Your task to perform on an android device: Add "acer nitro" to the cart on bestbuy.com Image 0: 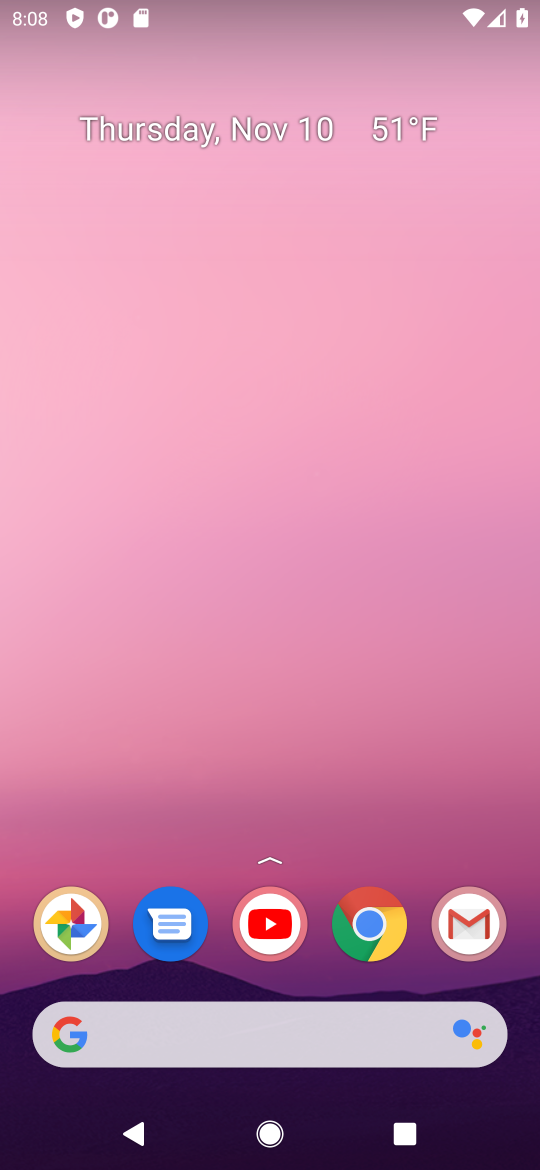
Step 0: click (372, 936)
Your task to perform on an android device: Add "acer nitro" to the cart on bestbuy.com Image 1: 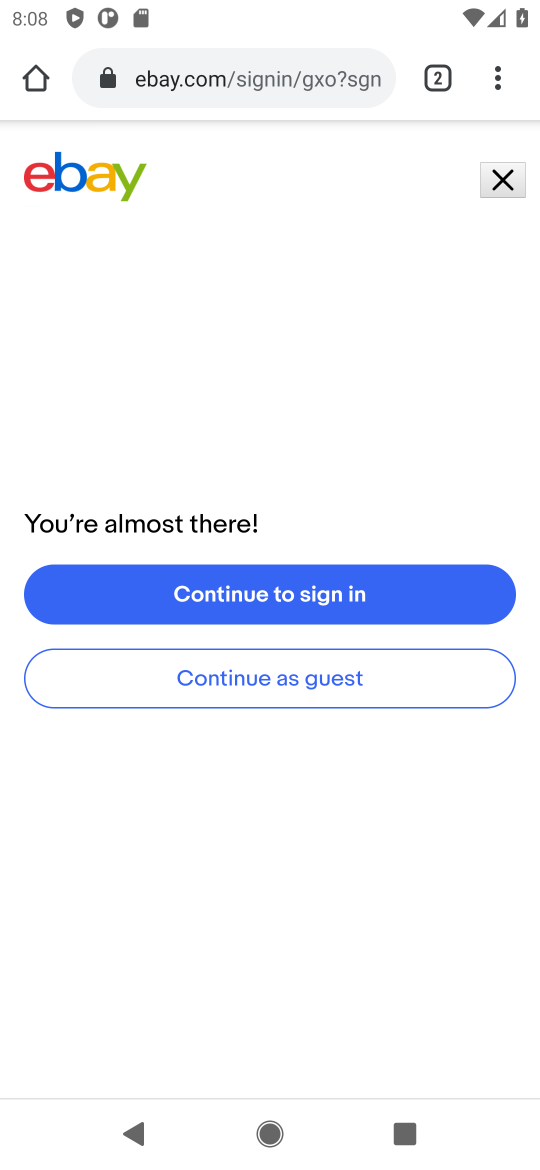
Step 1: click (219, 87)
Your task to perform on an android device: Add "acer nitro" to the cart on bestbuy.com Image 2: 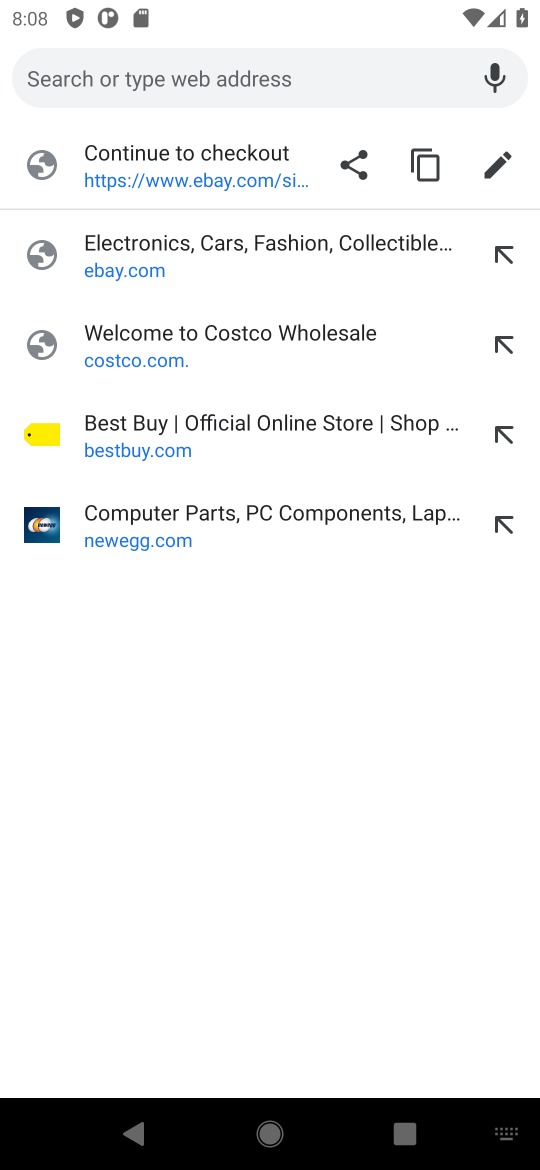
Step 2: click (133, 451)
Your task to perform on an android device: Add "acer nitro" to the cart on bestbuy.com Image 3: 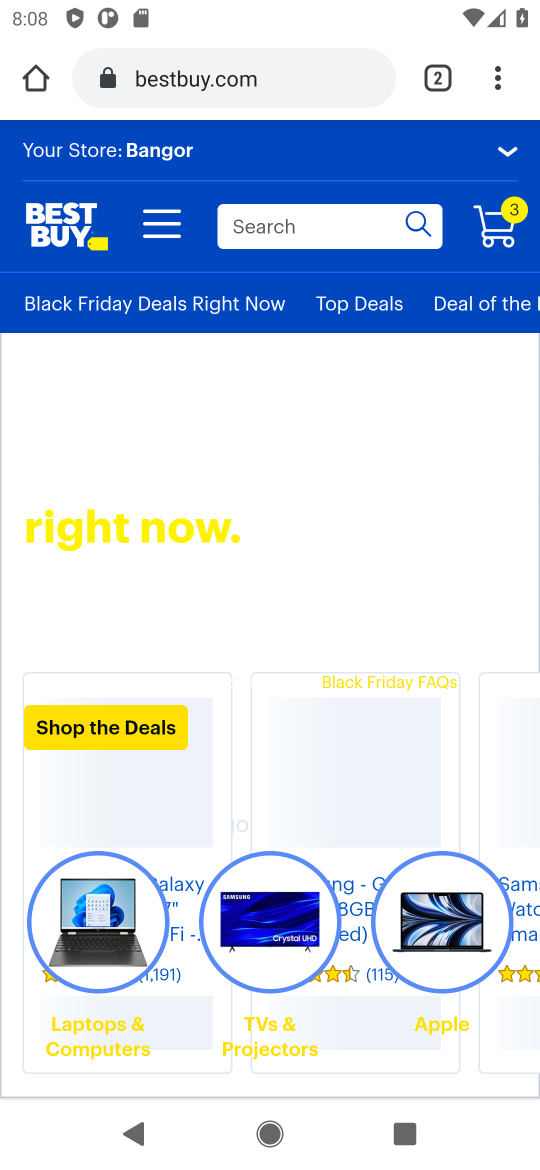
Step 3: click (303, 230)
Your task to perform on an android device: Add "acer nitro" to the cart on bestbuy.com Image 4: 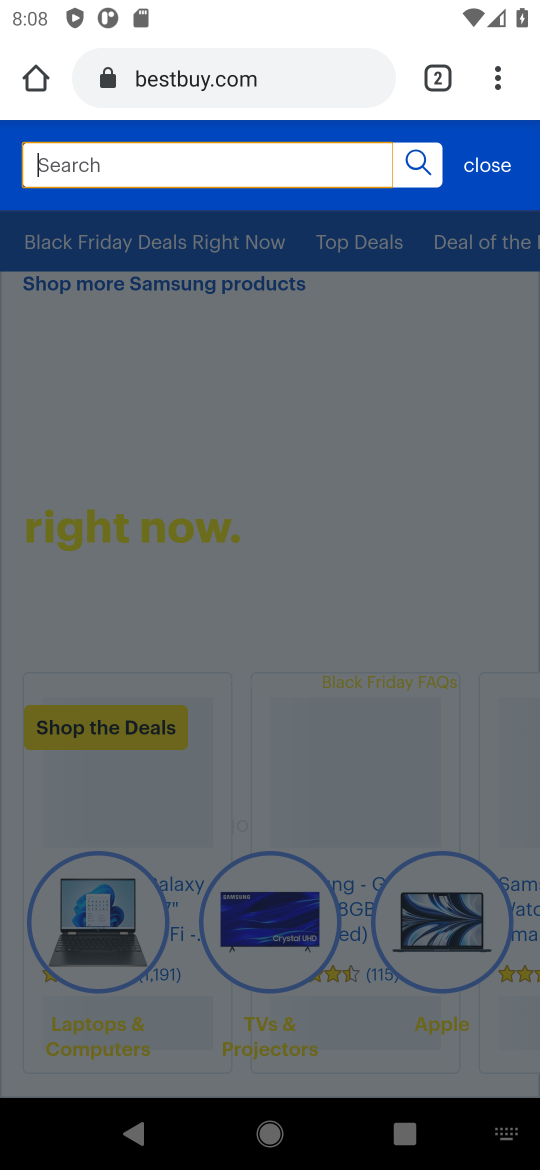
Step 4: click (303, 230)
Your task to perform on an android device: Add "acer nitro" to the cart on bestbuy.com Image 5: 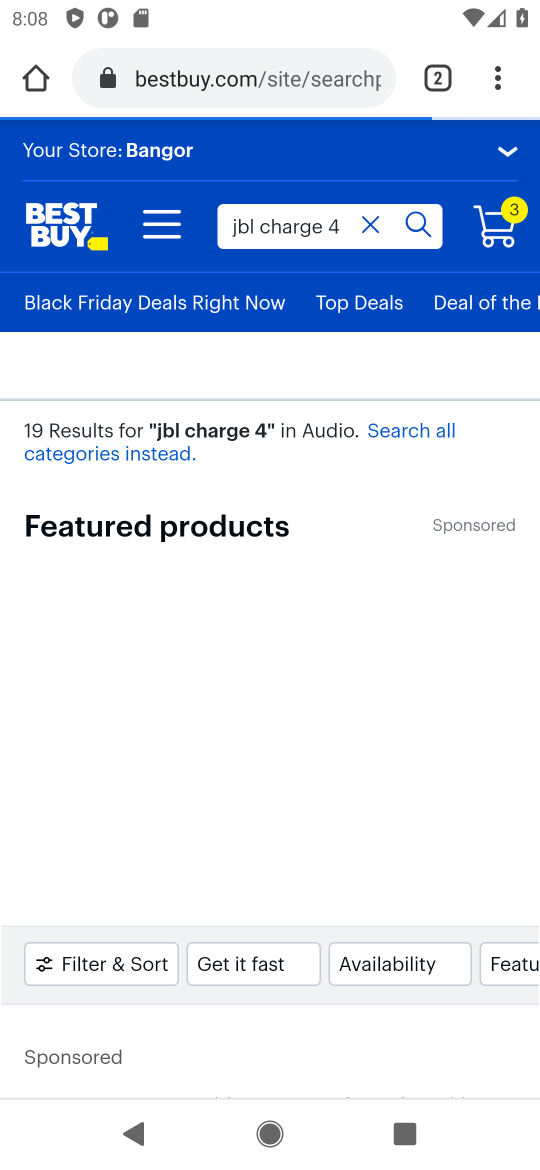
Step 5: click (365, 229)
Your task to perform on an android device: Add "acer nitro" to the cart on bestbuy.com Image 6: 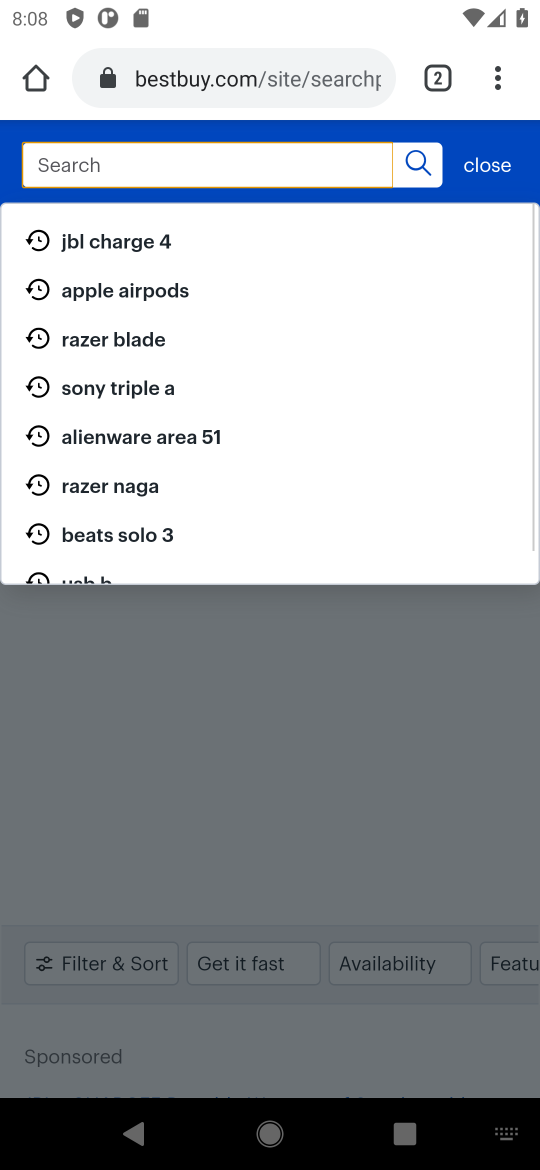
Step 6: click (131, 167)
Your task to perform on an android device: Add "acer nitro" to the cart on bestbuy.com Image 7: 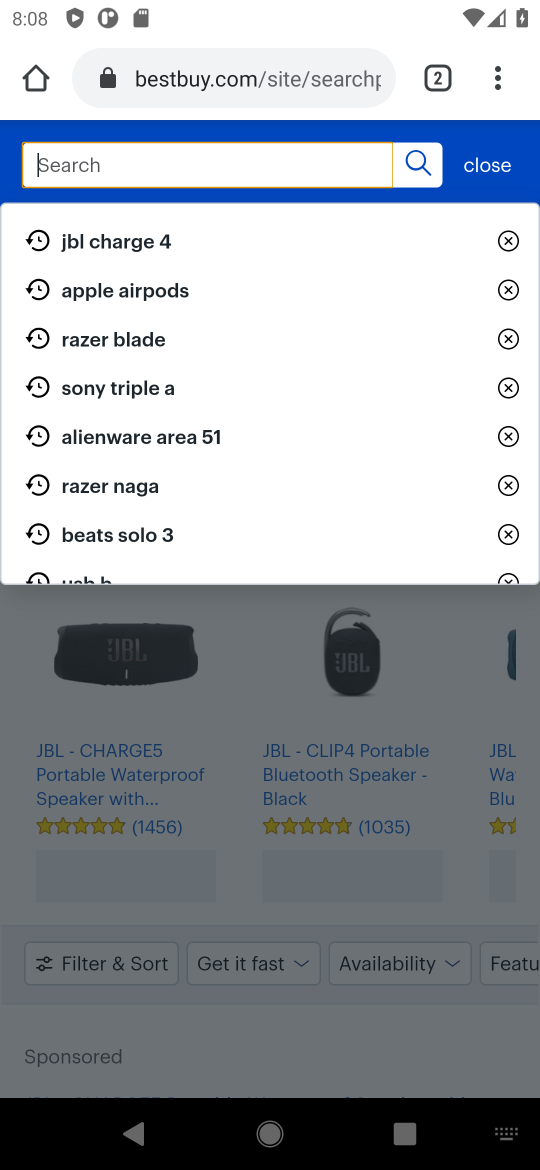
Step 7: type "acer nitro"
Your task to perform on an android device: Add "acer nitro" to the cart on bestbuy.com Image 8: 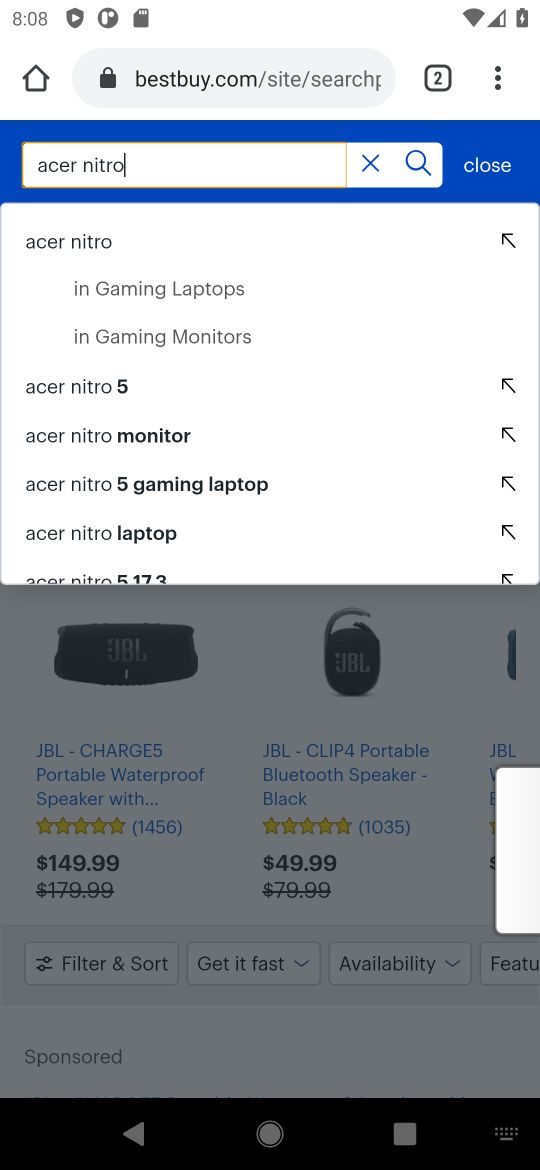
Step 8: click (88, 249)
Your task to perform on an android device: Add "acer nitro" to the cart on bestbuy.com Image 9: 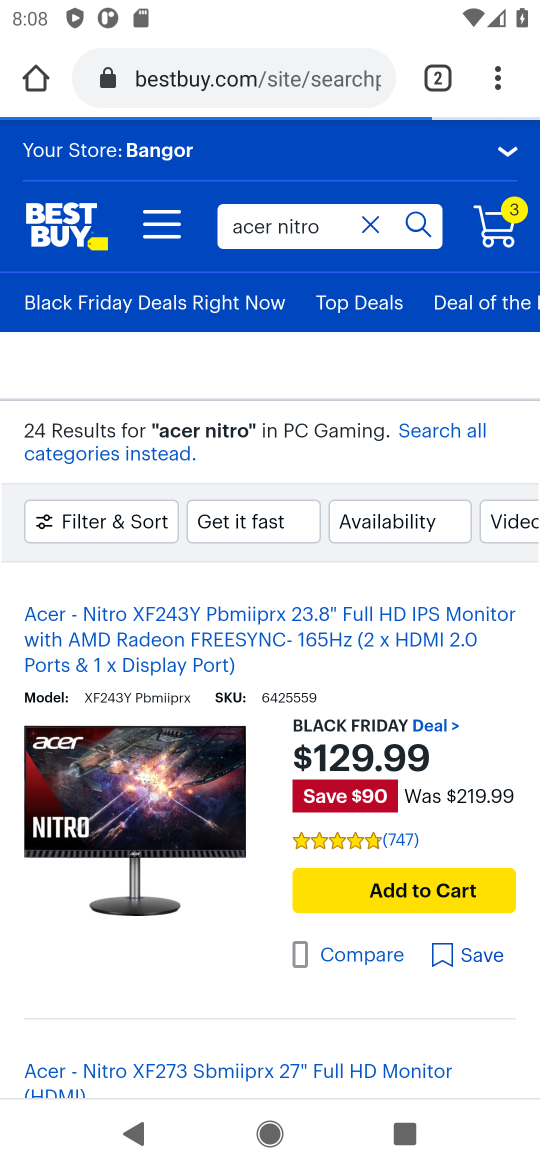
Step 9: drag from (146, 805) to (156, 464)
Your task to perform on an android device: Add "acer nitro" to the cart on bestbuy.com Image 10: 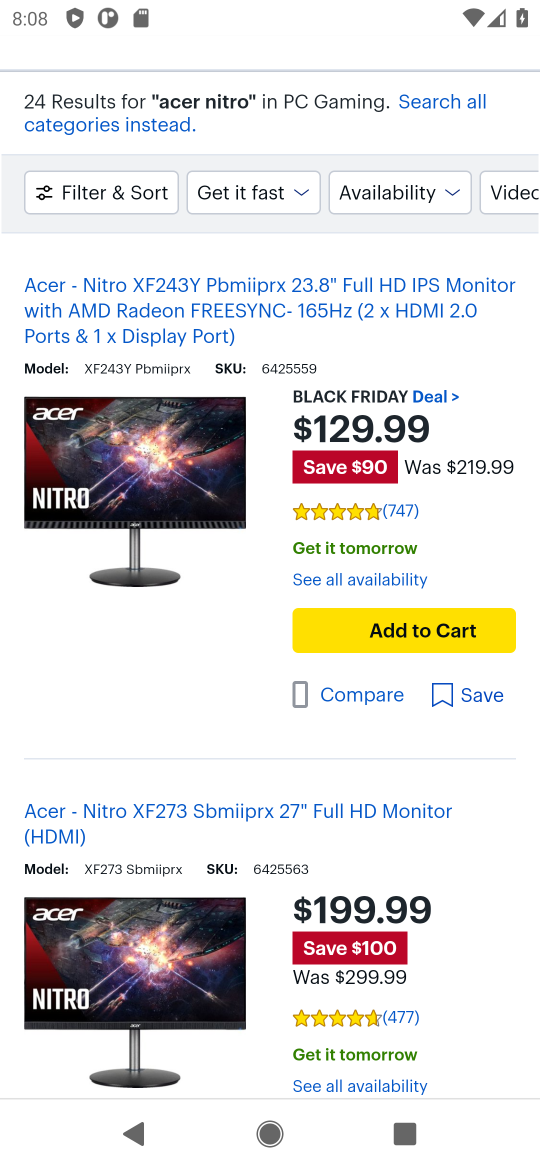
Step 10: click (414, 628)
Your task to perform on an android device: Add "acer nitro" to the cart on bestbuy.com Image 11: 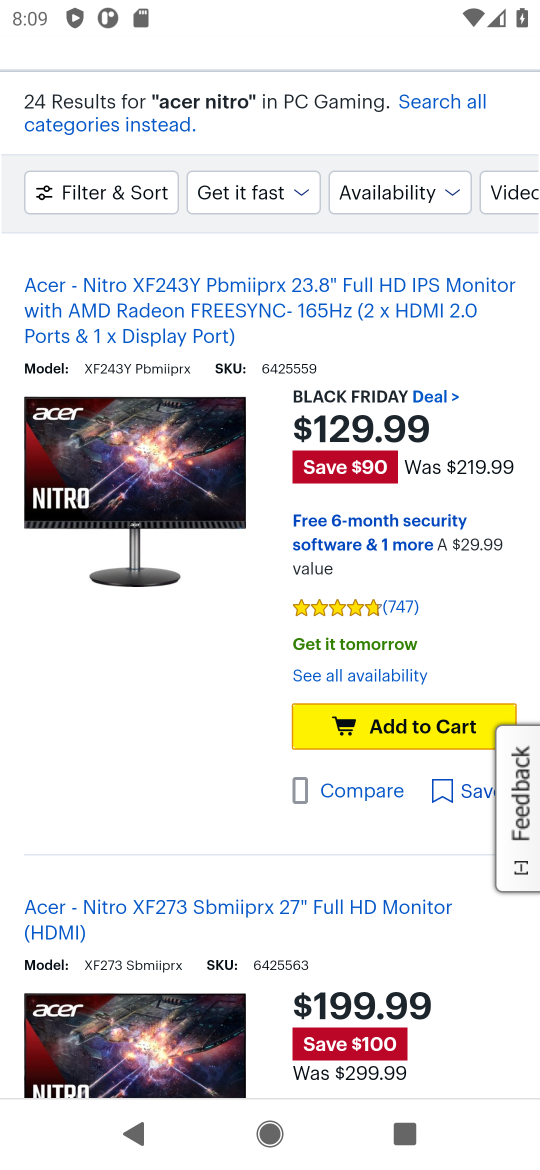
Step 11: click (383, 723)
Your task to perform on an android device: Add "acer nitro" to the cart on bestbuy.com Image 12: 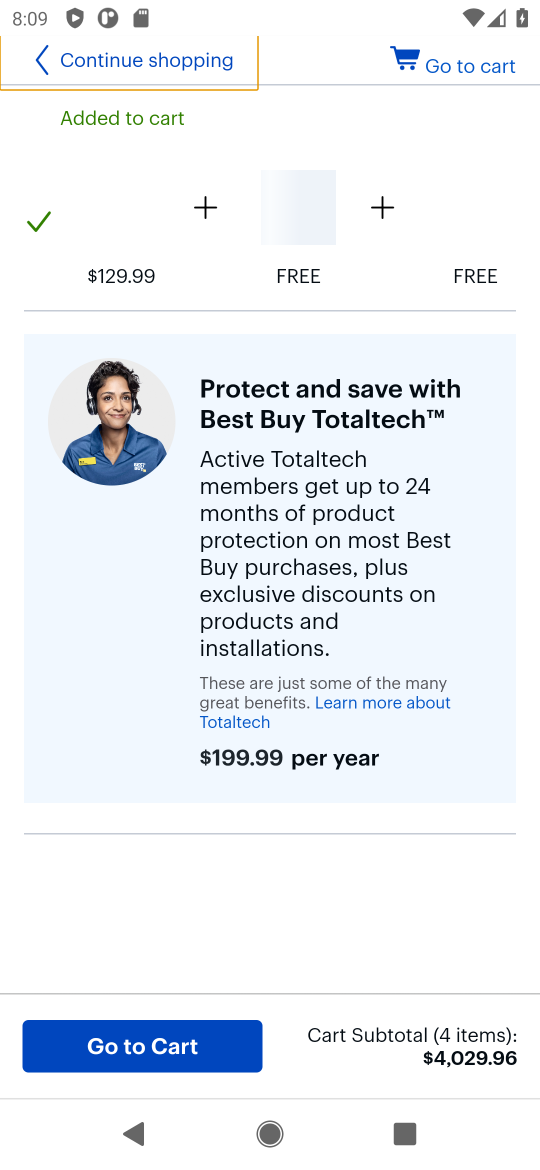
Step 12: task complete